Your task to perform on an android device: Open the calendar and show me this week's events? Image 0: 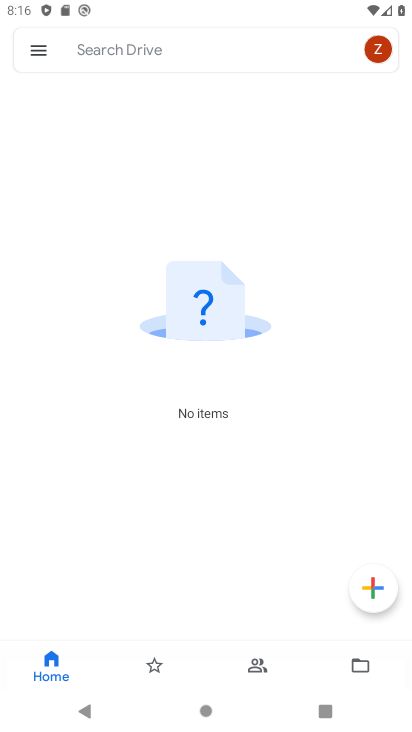
Step 0: press home button
Your task to perform on an android device: Open the calendar and show me this week's events? Image 1: 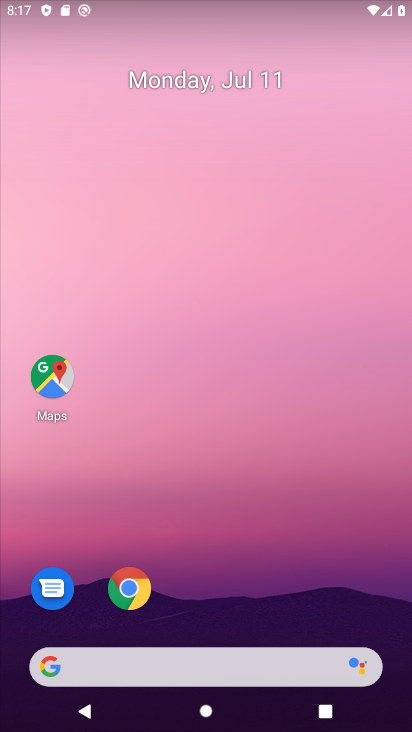
Step 1: drag from (116, 466) to (193, 147)
Your task to perform on an android device: Open the calendar and show me this week's events? Image 2: 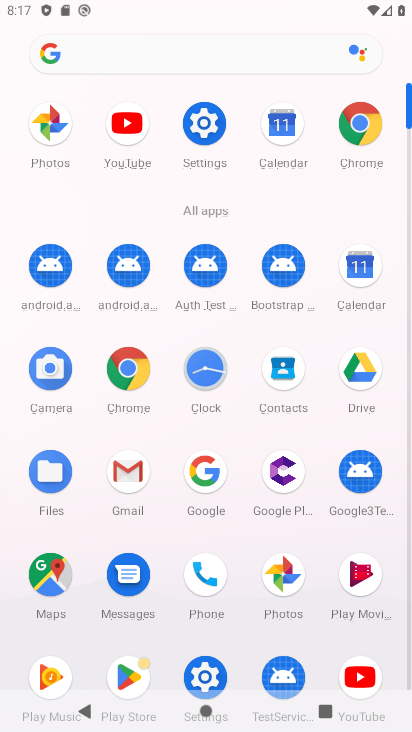
Step 2: click (355, 282)
Your task to perform on an android device: Open the calendar and show me this week's events? Image 3: 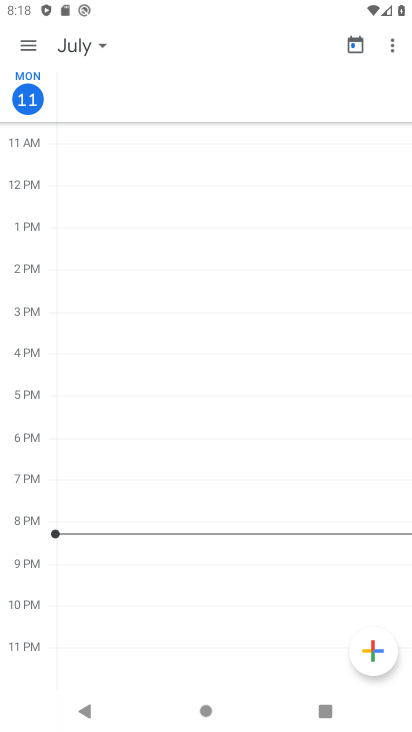
Step 3: drag from (179, 654) to (345, 144)
Your task to perform on an android device: Open the calendar and show me this week's events? Image 4: 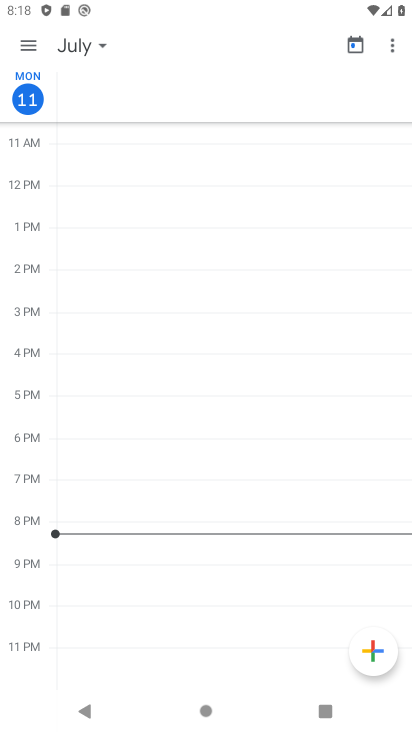
Step 4: drag from (271, 553) to (190, 2)
Your task to perform on an android device: Open the calendar and show me this week's events? Image 5: 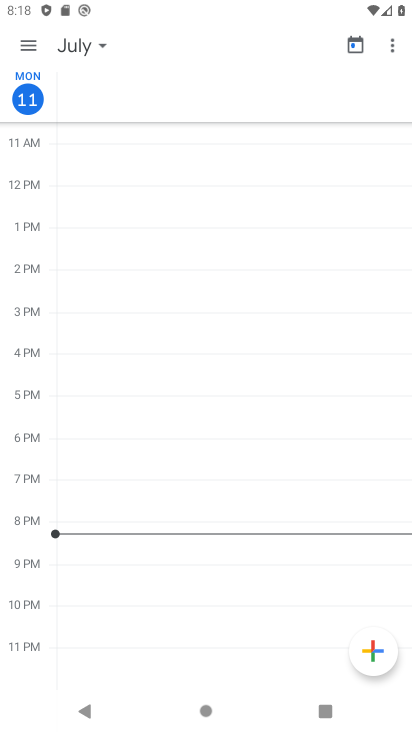
Step 5: click (392, 46)
Your task to perform on an android device: Open the calendar and show me this week's events? Image 6: 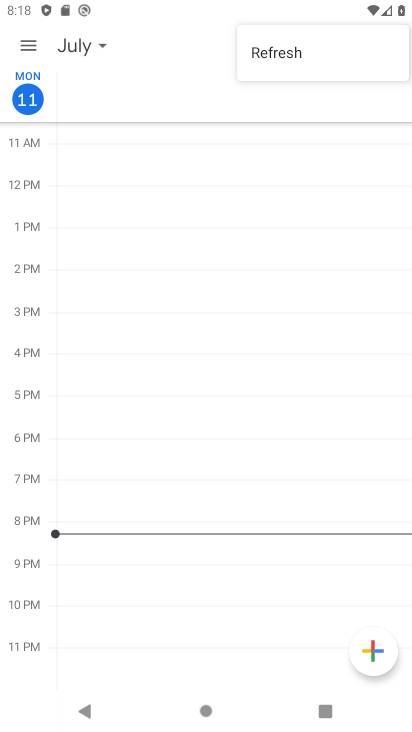
Step 6: click (133, 47)
Your task to perform on an android device: Open the calendar and show me this week's events? Image 7: 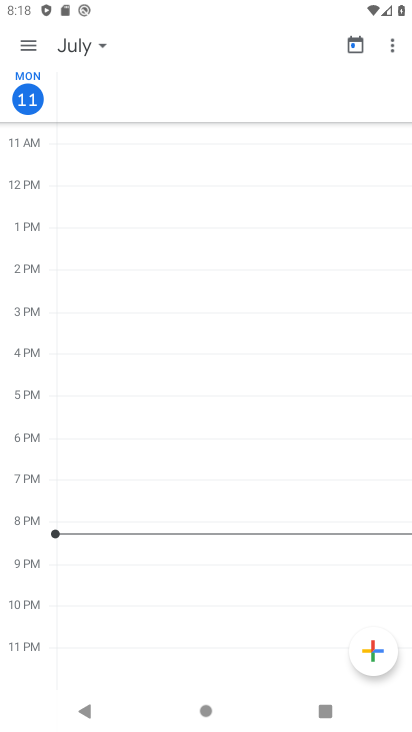
Step 7: click (37, 42)
Your task to perform on an android device: Open the calendar and show me this week's events? Image 8: 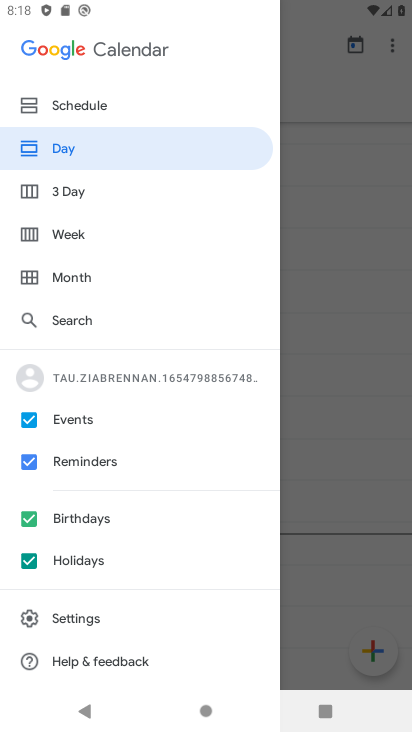
Step 8: click (103, 232)
Your task to perform on an android device: Open the calendar and show me this week's events? Image 9: 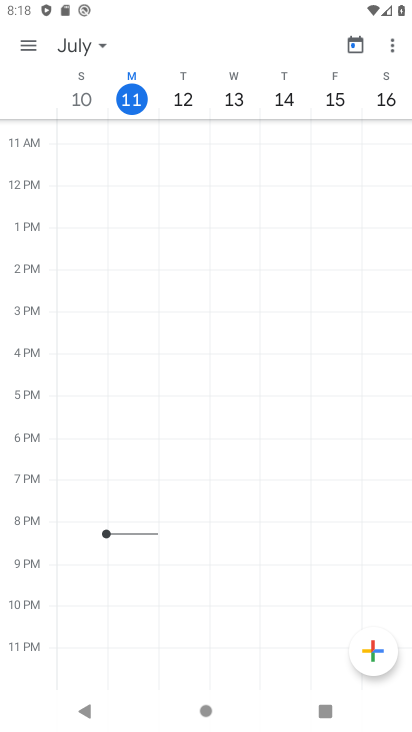
Step 9: task complete